Your task to perform on an android device: turn off translation in the chrome app Image 0: 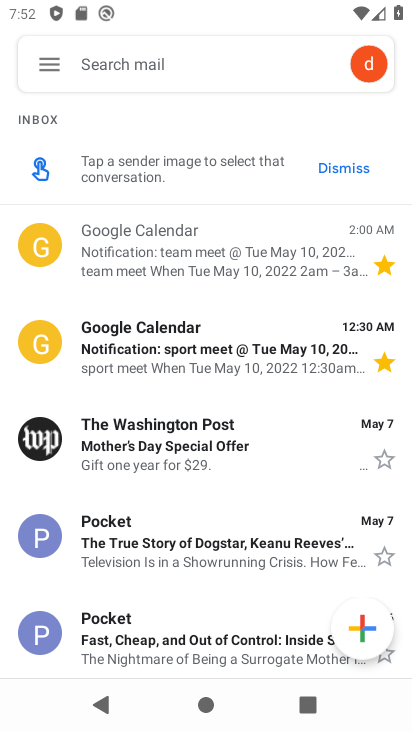
Step 0: press home button
Your task to perform on an android device: turn off translation in the chrome app Image 1: 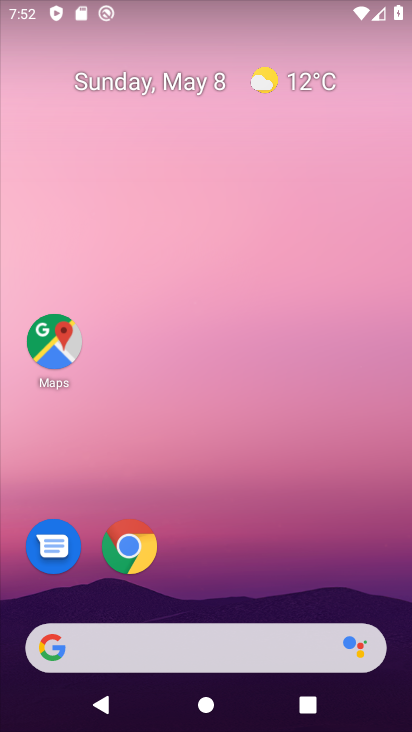
Step 1: click (110, 533)
Your task to perform on an android device: turn off translation in the chrome app Image 2: 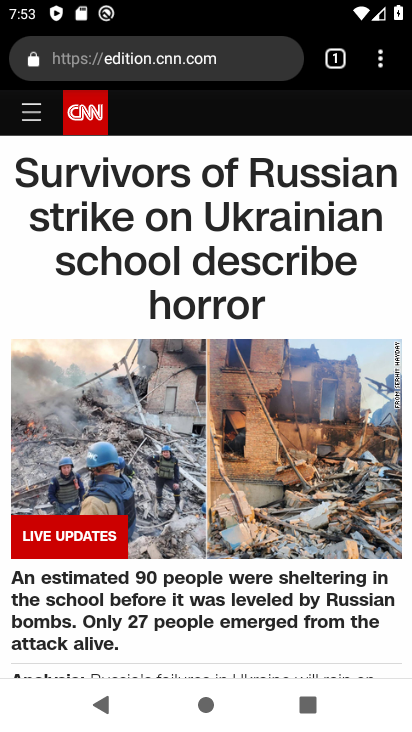
Step 2: click (375, 60)
Your task to perform on an android device: turn off translation in the chrome app Image 3: 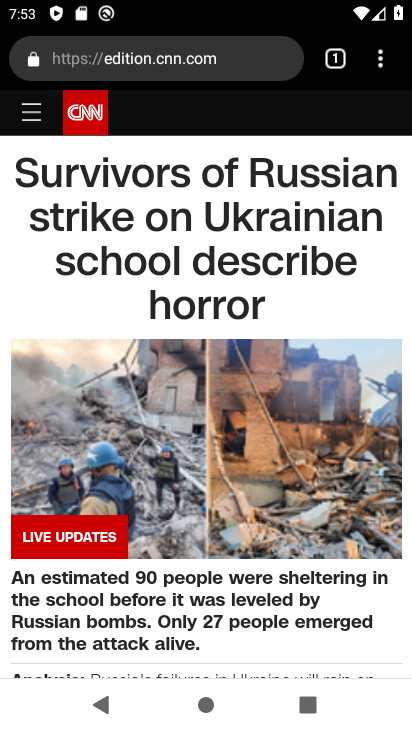
Step 3: click (376, 56)
Your task to perform on an android device: turn off translation in the chrome app Image 4: 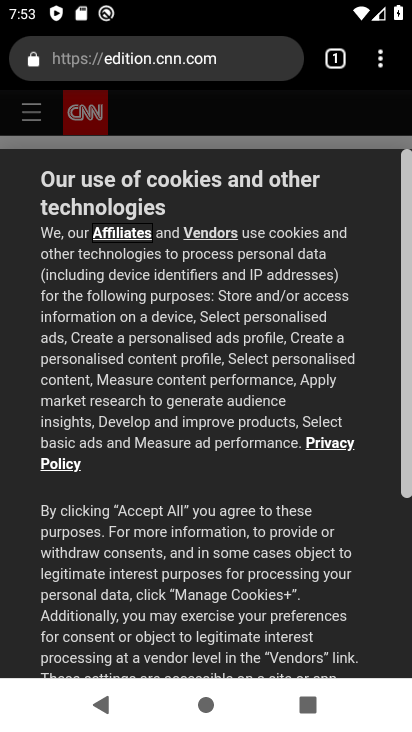
Step 4: click (379, 59)
Your task to perform on an android device: turn off translation in the chrome app Image 5: 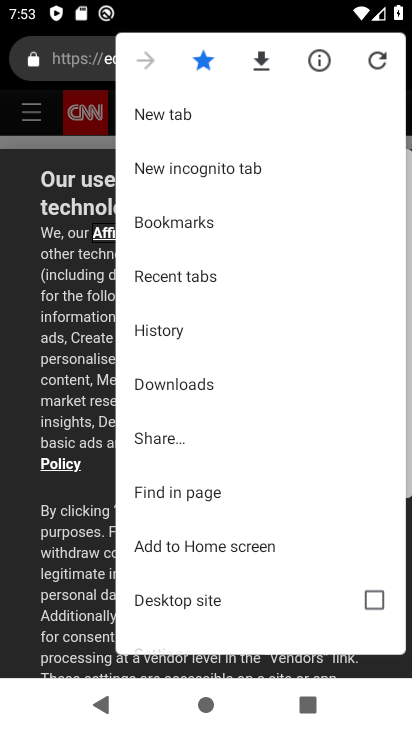
Step 5: drag from (312, 529) to (316, 307)
Your task to perform on an android device: turn off translation in the chrome app Image 6: 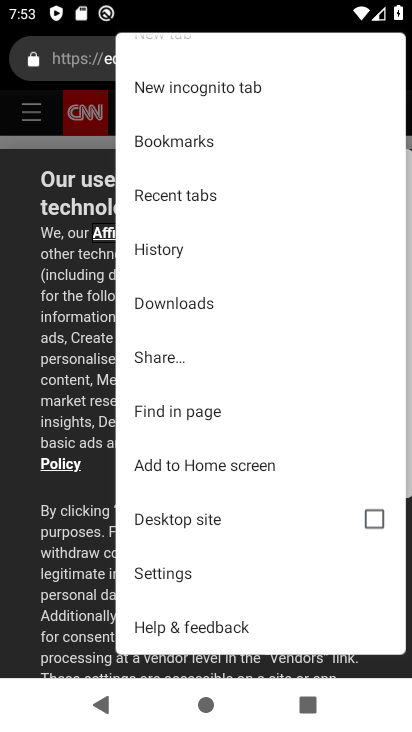
Step 6: click (176, 571)
Your task to perform on an android device: turn off translation in the chrome app Image 7: 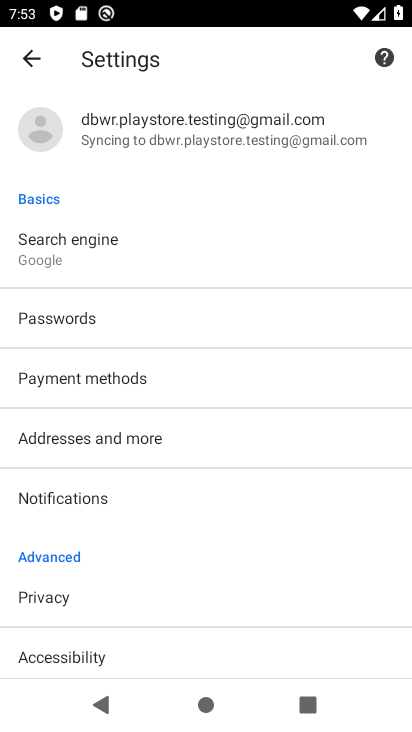
Step 7: drag from (290, 631) to (277, 330)
Your task to perform on an android device: turn off translation in the chrome app Image 8: 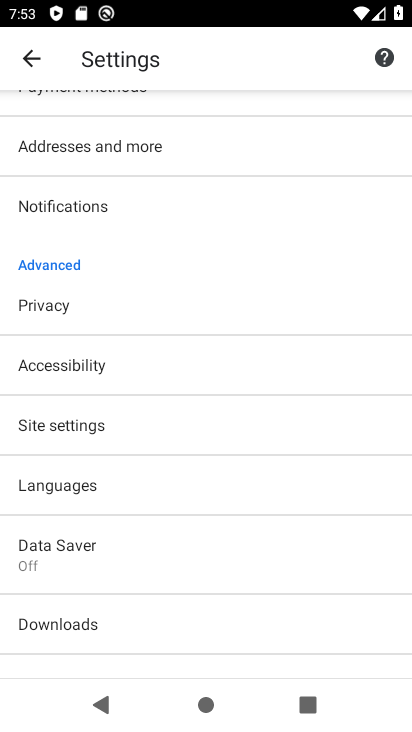
Step 8: click (116, 427)
Your task to perform on an android device: turn off translation in the chrome app Image 9: 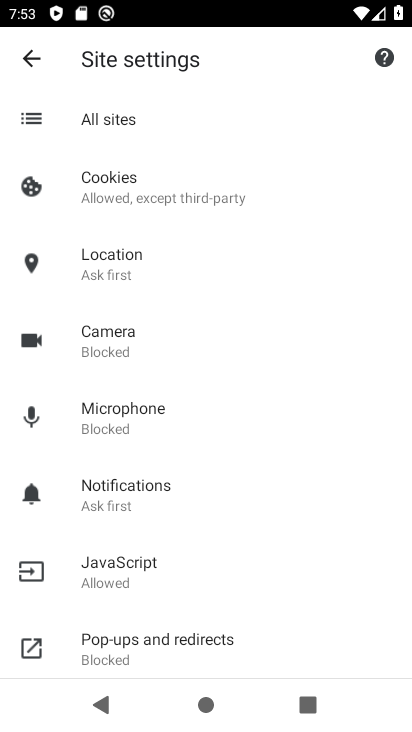
Step 9: drag from (272, 467) to (273, 338)
Your task to perform on an android device: turn off translation in the chrome app Image 10: 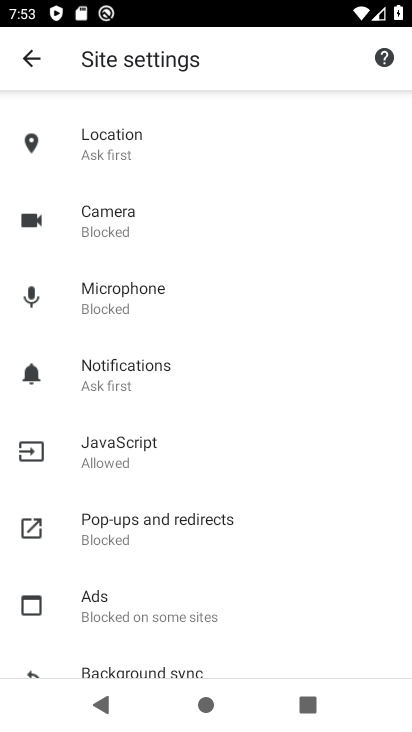
Step 10: click (25, 59)
Your task to perform on an android device: turn off translation in the chrome app Image 11: 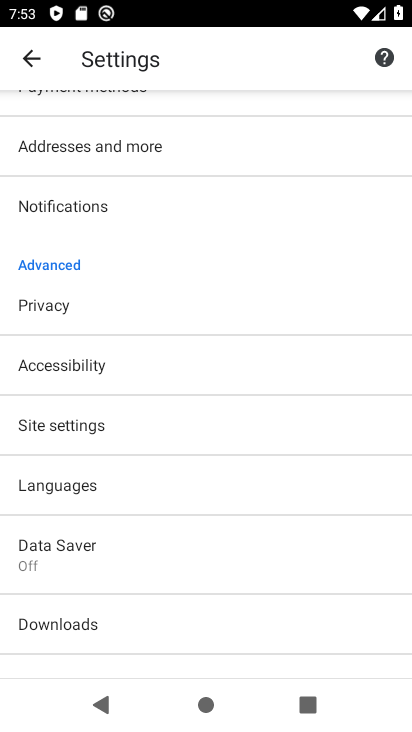
Step 11: click (94, 480)
Your task to perform on an android device: turn off translation in the chrome app Image 12: 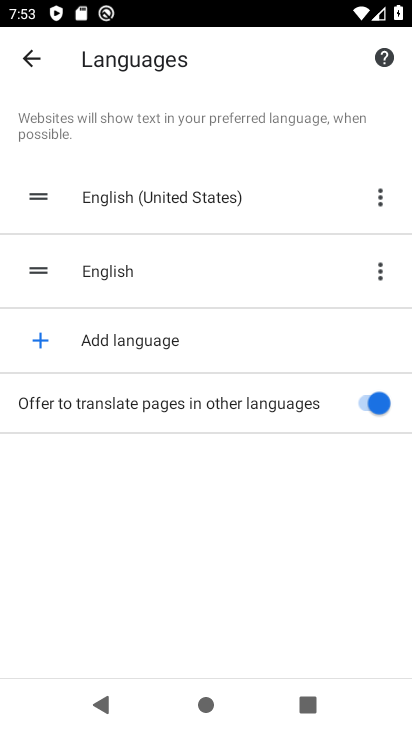
Step 12: click (361, 405)
Your task to perform on an android device: turn off translation in the chrome app Image 13: 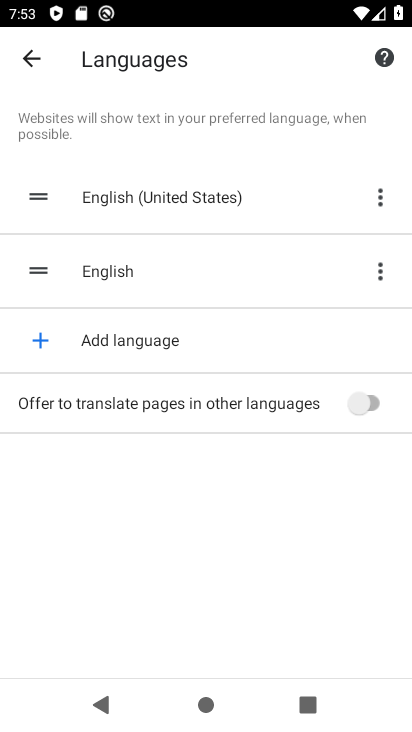
Step 13: task complete